Your task to perform on an android device: turn vacation reply on in the gmail app Image 0: 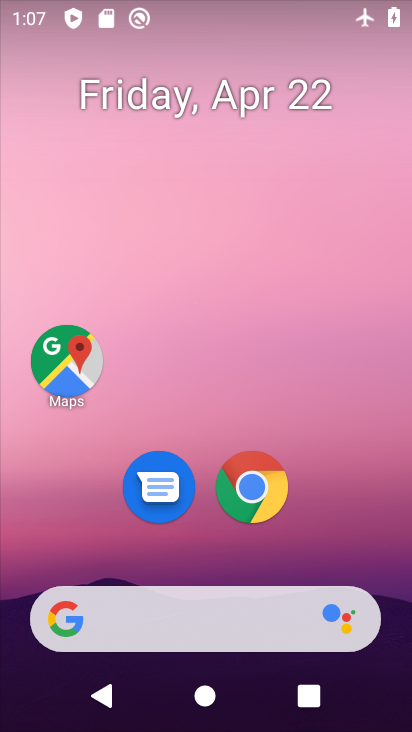
Step 0: drag from (212, 557) to (244, 189)
Your task to perform on an android device: turn vacation reply on in the gmail app Image 1: 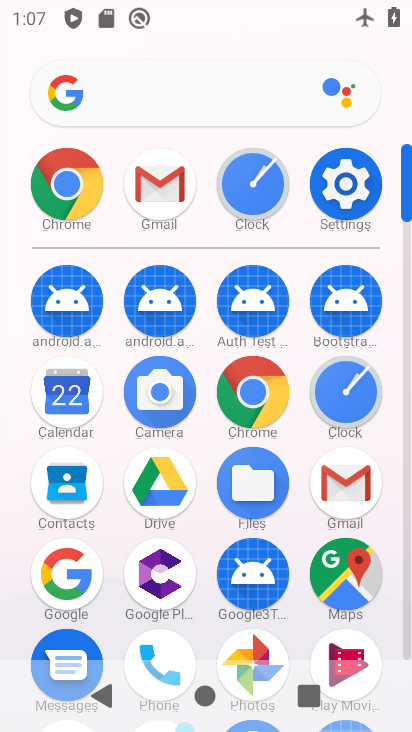
Step 1: click (331, 489)
Your task to perform on an android device: turn vacation reply on in the gmail app Image 2: 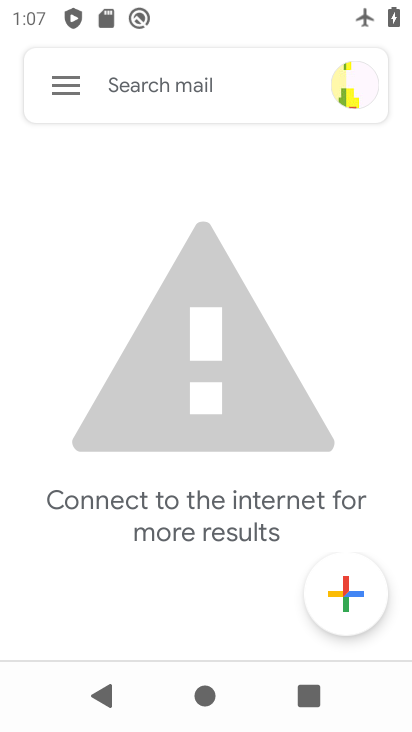
Step 2: click (72, 81)
Your task to perform on an android device: turn vacation reply on in the gmail app Image 3: 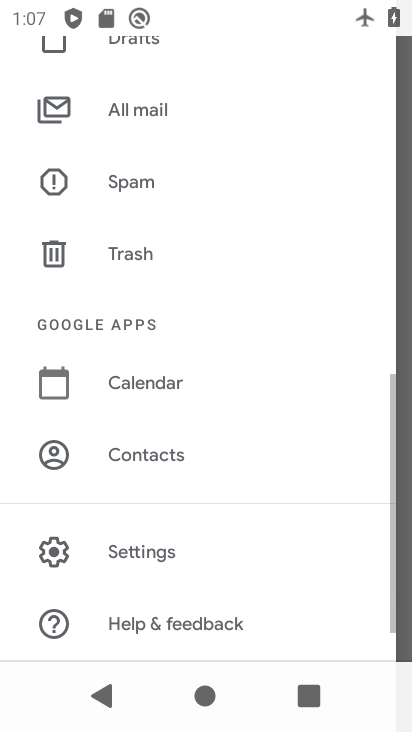
Step 3: click (176, 534)
Your task to perform on an android device: turn vacation reply on in the gmail app Image 4: 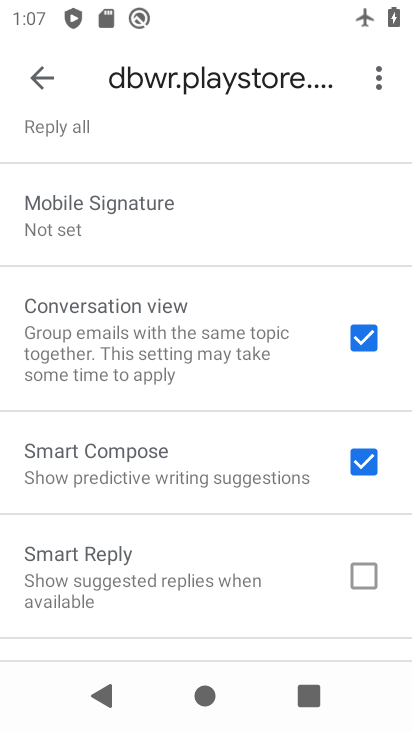
Step 4: drag from (162, 611) to (207, 313)
Your task to perform on an android device: turn vacation reply on in the gmail app Image 5: 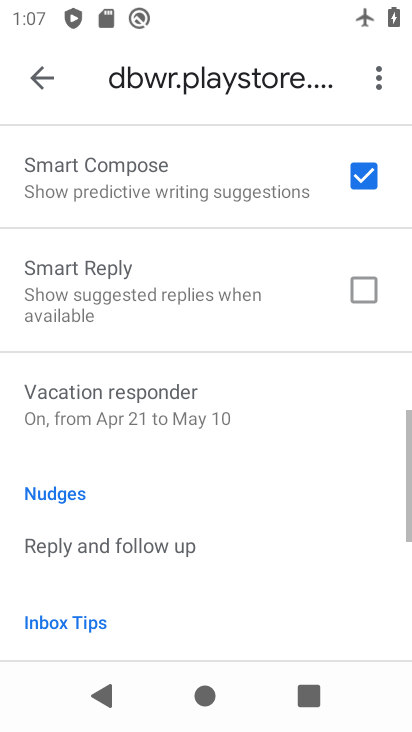
Step 5: drag from (198, 543) to (231, 342)
Your task to perform on an android device: turn vacation reply on in the gmail app Image 6: 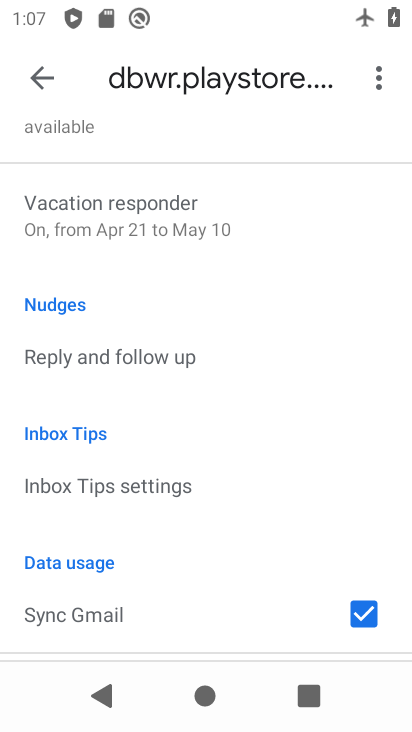
Step 6: click (197, 564)
Your task to perform on an android device: turn vacation reply on in the gmail app Image 7: 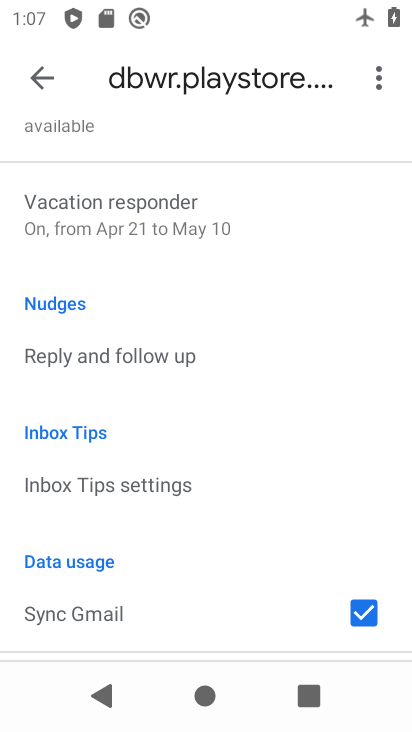
Step 7: click (179, 235)
Your task to perform on an android device: turn vacation reply on in the gmail app Image 8: 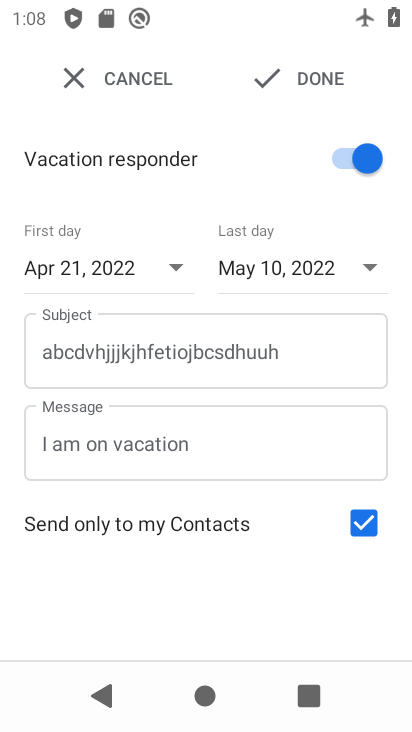
Step 8: task complete